Your task to perform on an android device: When is my next appointment? Image 0: 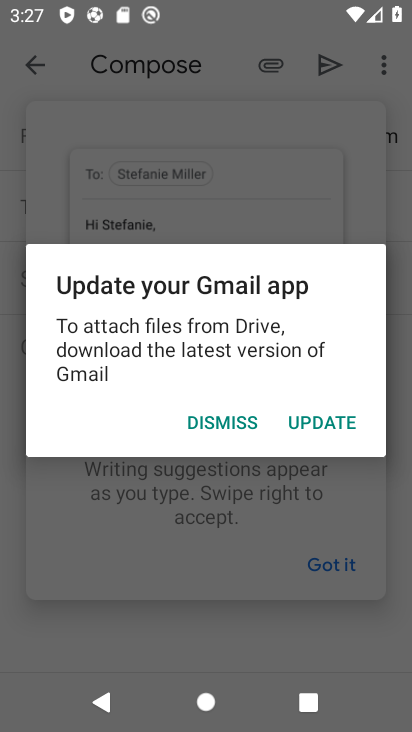
Step 0: press home button
Your task to perform on an android device: When is my next appointment? Image 1: 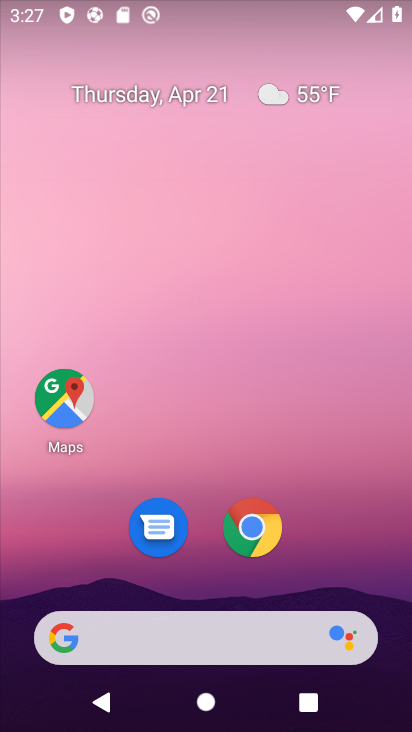
Step 1: drag from (347, 517) to (219, 178)
Your task to perform on an android device: When is my next appointment? Image 2: 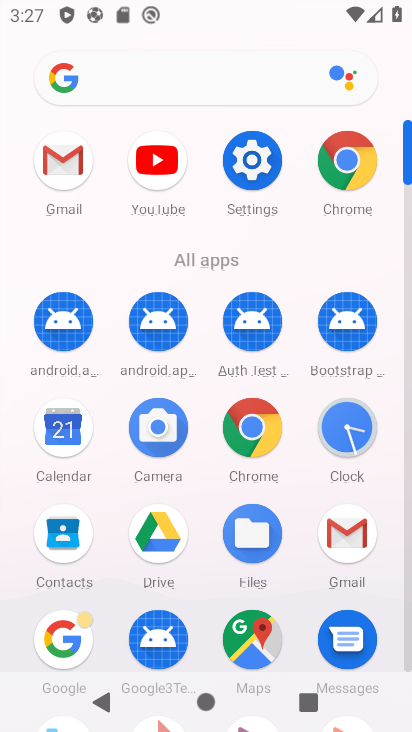
Step 2: click (70, 436)
Your task to perform on an android device: When is my next appointment? Image 3: 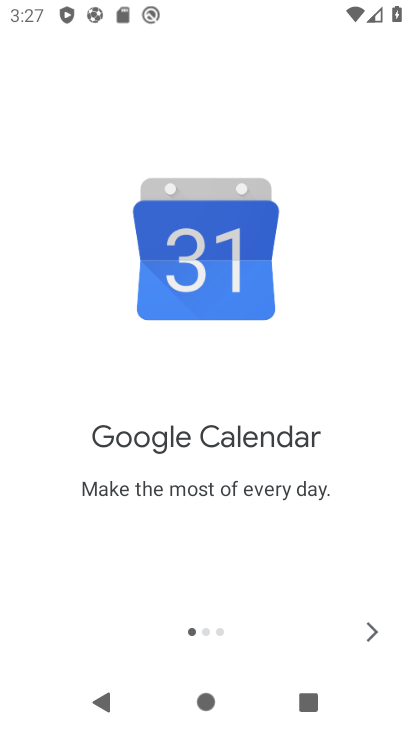
Step 3: click (365, 627)
Your task to perform on an android device: When is my next appointment? Image 4: 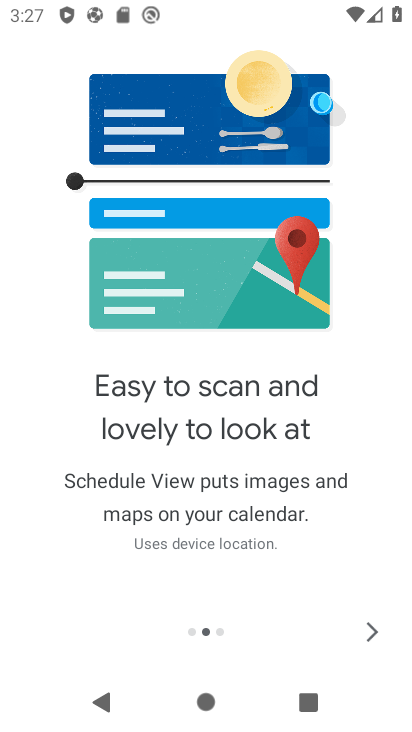
Step 4: click (365, 627)
Your task to perform on an android device: When is my next appointment? Image 5: 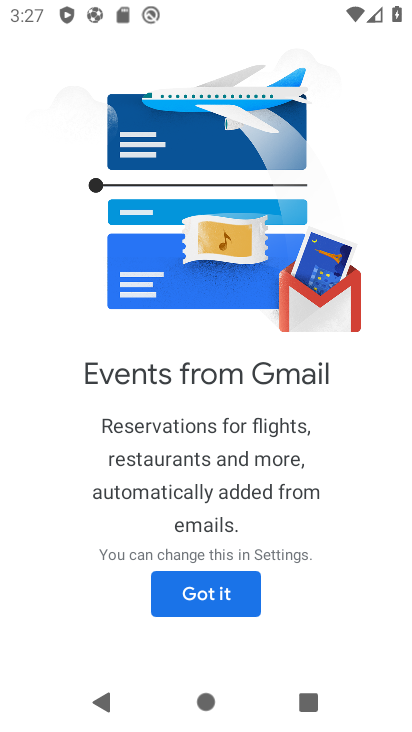
Step 5: click (205, 595)
Your task to perform on an android device: When is my next appointment? Image 6: 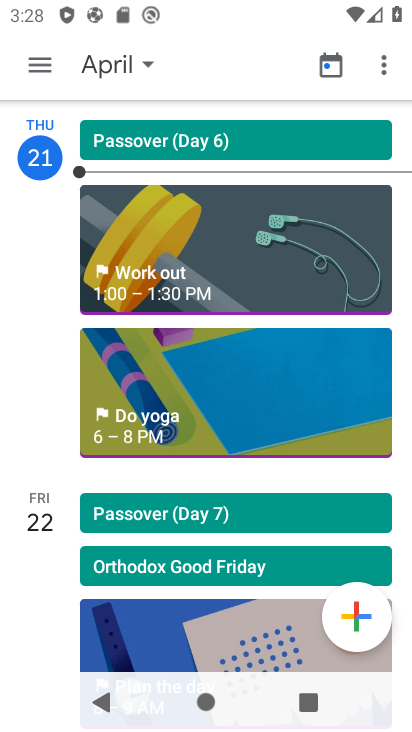
Step 6: click (51, 74)
Your task to perform on an android device: When is my next appointment? Image 7: 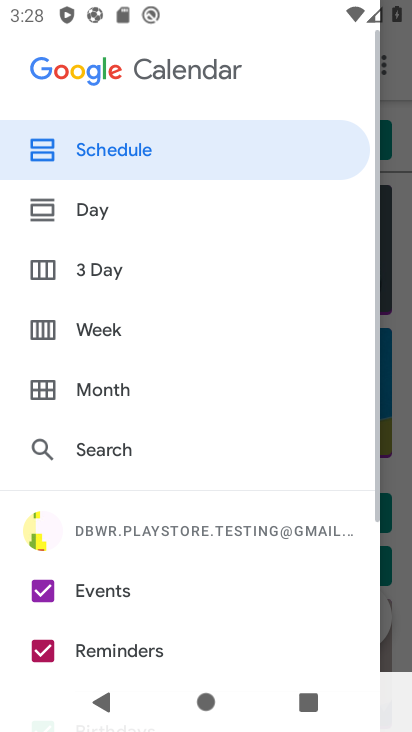
Step 7: click (180, 146)
Your task to perform on an android device: When is my next appointment? Image 8: 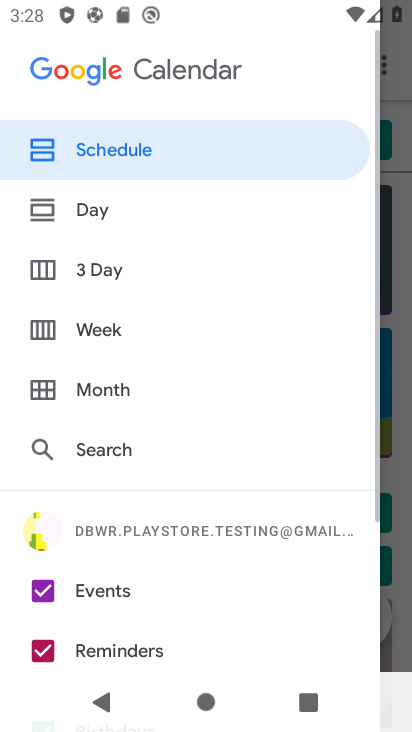
Step 8: click (118, 148)
Your task to perform on an android device: When is my next appointment? Image 9: 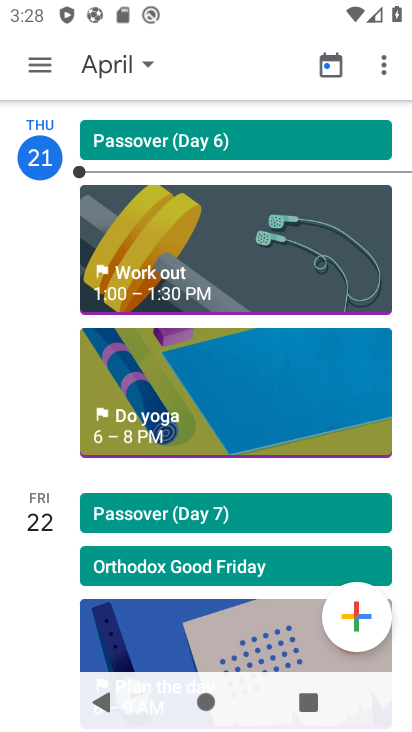
Step 9: task complete